Your task to perform on an android device: delete a single message in the gmail app Image 0: 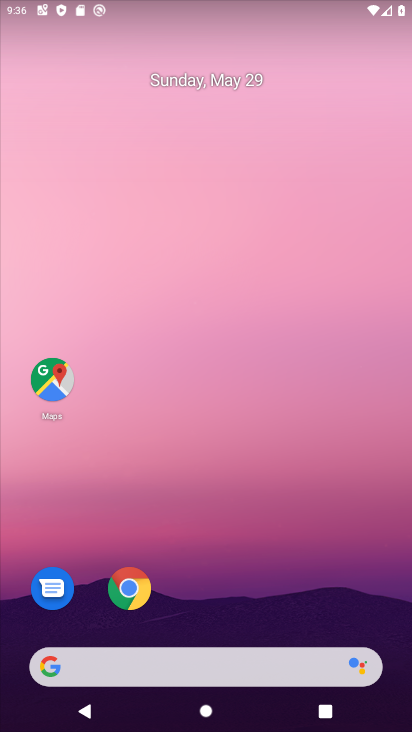
Step 0: task impossible